Your task to perform on an android device: turn off improve location accuracy Image 0: 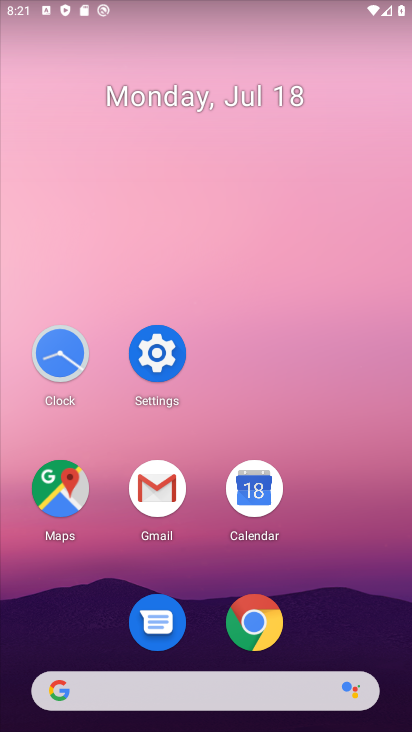
Step 0: click (156, 349)
Your task to perform on an android device: turn off improve location accuracy Image 1: 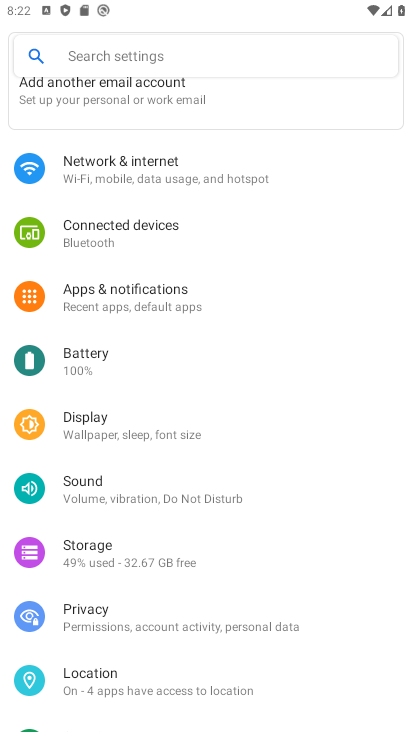
Step 1: click (105, 680)
Your task to perform on an android device: turn off improve location accuracy Image 2: 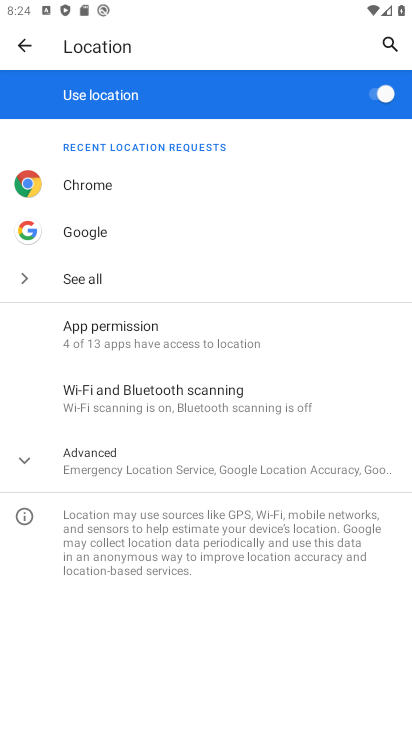
Step 2: click (36, 459)
Your task to perform on an android device: turn off improve location accuracy Image 3: 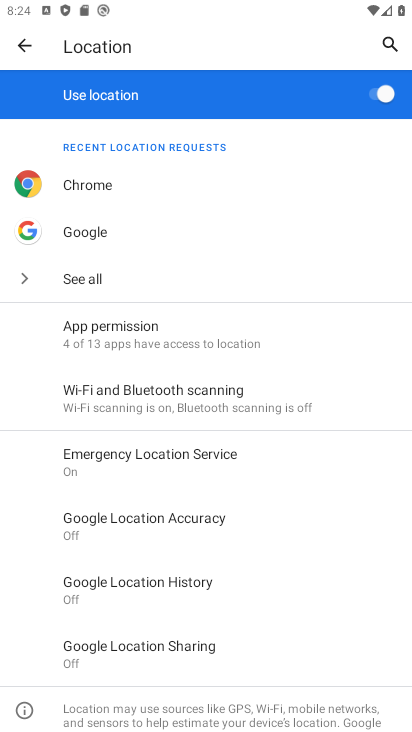
Step 3: task complete